Your task to perform on an android device: Go to Reddit.com Image 0: 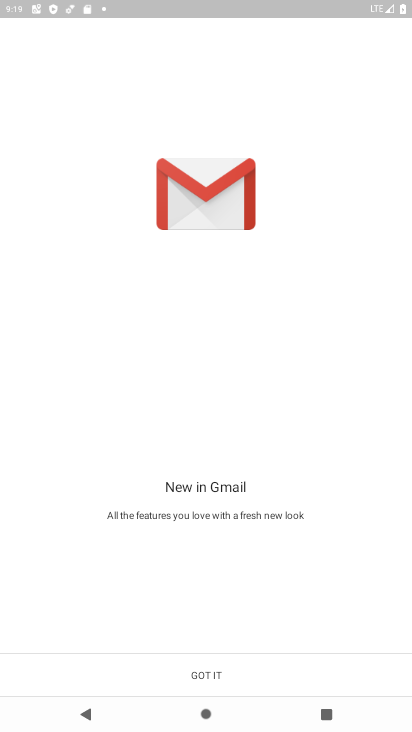
Step 0: press home button
Your task to perform on an android device: Go to Reddit.com Image 1: 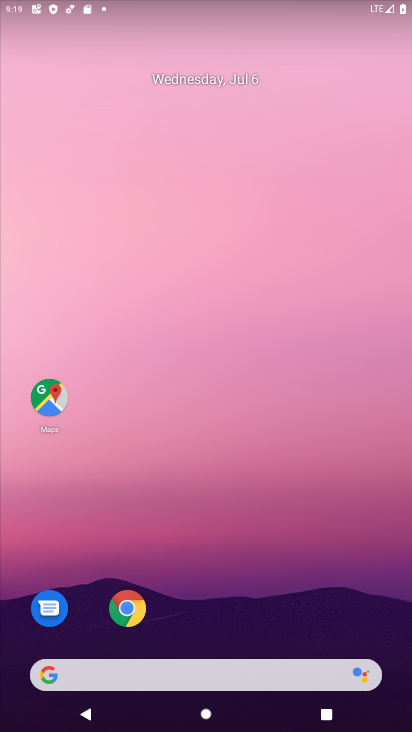
Step 1: click (124, 613)
Your task to perform on an android device: Go to Reddit.com Image 2: 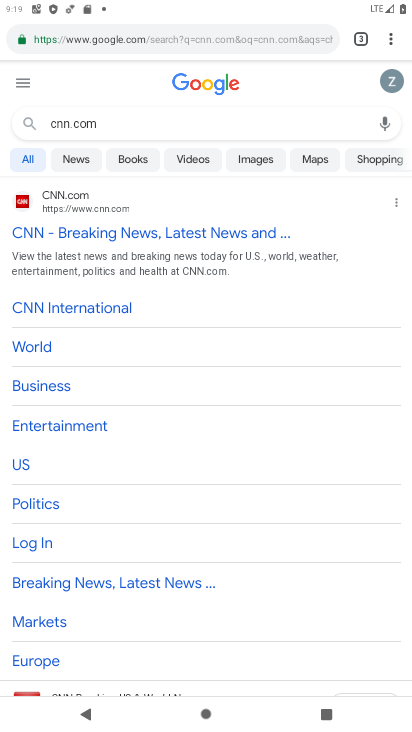
Step 2: click (390, 33)
Your task to perform on an android device: Go to Reddit.com Image 3: 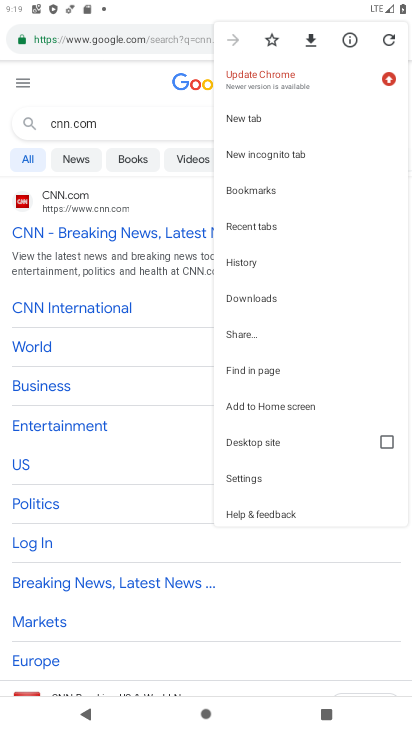
Step 3: click (251, 121)
Your task to perform on an android device: Go to Reddit.com Image 4: 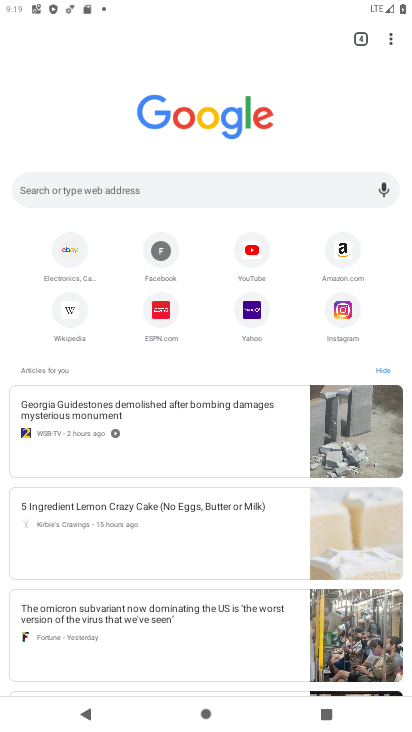
Step 4: click (147, 190)
Your task to perform on an android device: Go to Reddit.com Image 5: 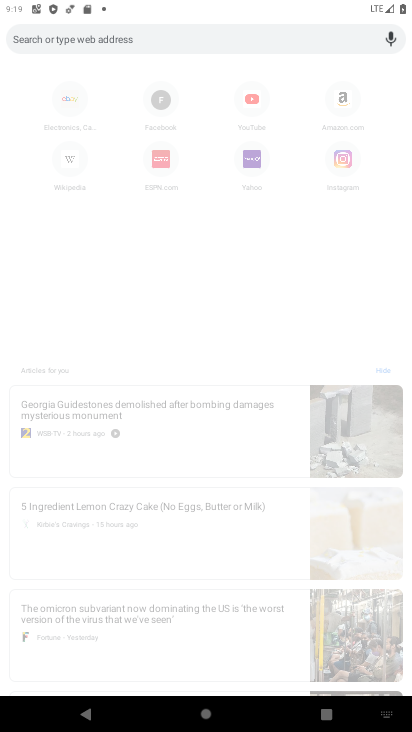
Step 5: type "reddit.com"
Your task to perform on an android device: Go to Reddit.com Image 6: 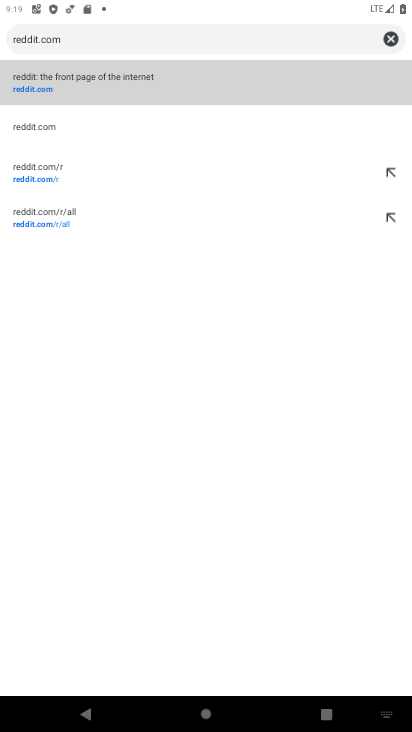
Step 6: click (40, 122)
Your task to perform on an android device: Go to Reddit.com Image 7: 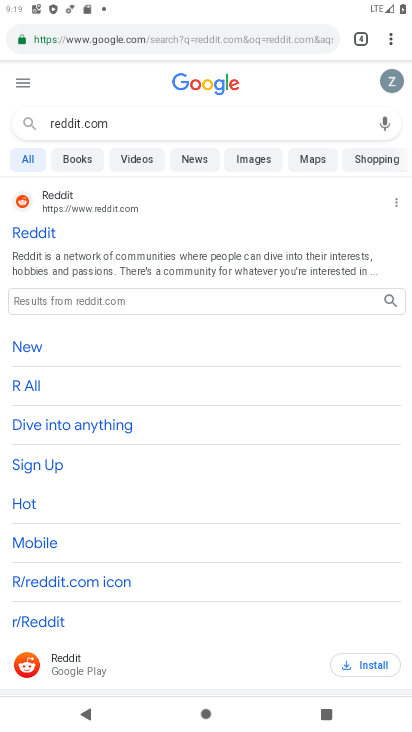
Step 7: task complete